Your task to perform on an android device: see sites visited before in the chrome app Image 0: 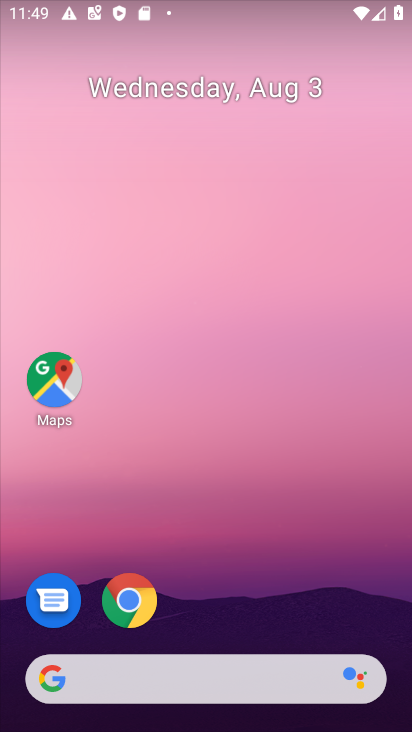
Step 0: press home button
Your task to perform on an android device: see sites visited before in the chrome app Image 1: 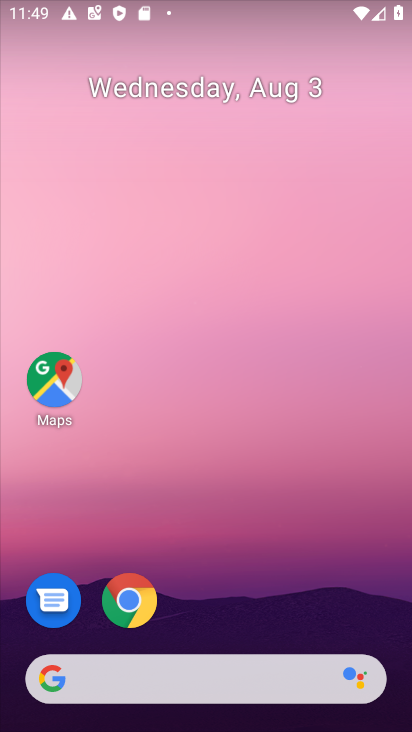
Step 1: click (132, 609)
Your task to perform on an android device: see sites visited before in the chrome app Image 2: 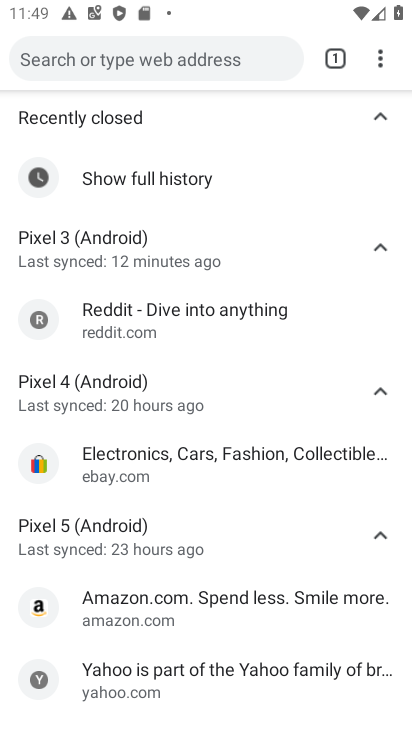
Step 2: task complete